Your task to perform on an android device: turn pop-ups on in chrome Image 0: 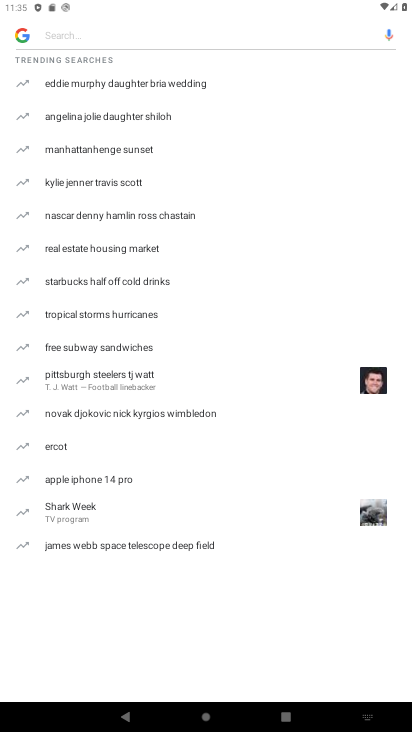
Step 0: press home button
Your task to perform on an android device: turn pop-ups on in chrome Image 1: 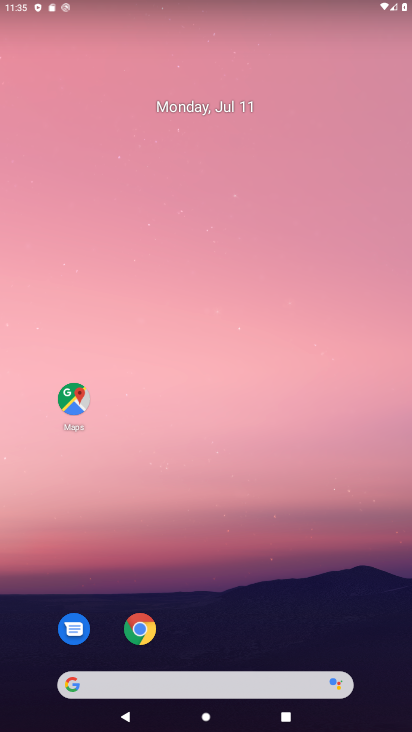
Step 1: drag from (340, 599) to (356, 123)
Your task to perform on an android device: turn pop-ups on in chrome Image 2: 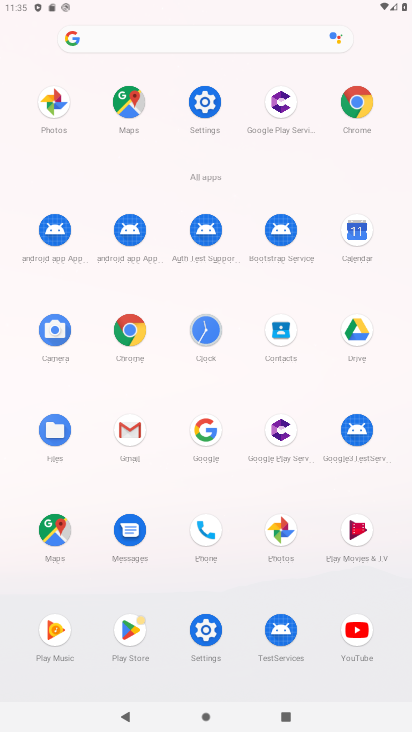
Step 2: click (137, 324)
Your task to perform on an android device: turn pop-ups on in chrome Image 3: 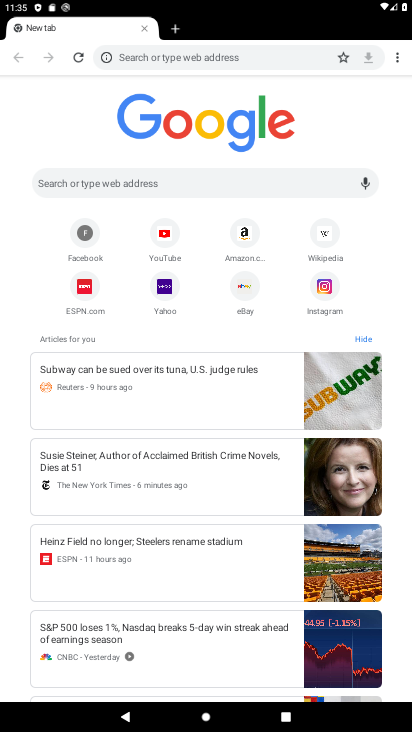
Step 3: click (393, 59)
Your task to perform on an android device: turn pop-ups on in chrome Image 4: 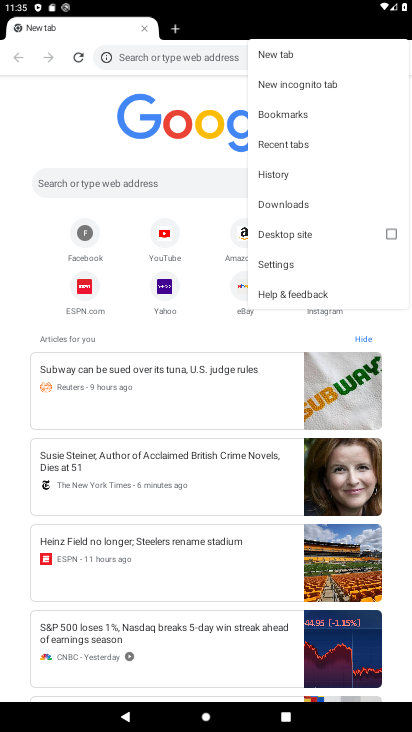
Step 4: click (296, 263)
Your task to perform on an android device: turn pop-ups on in chrome Image 5: 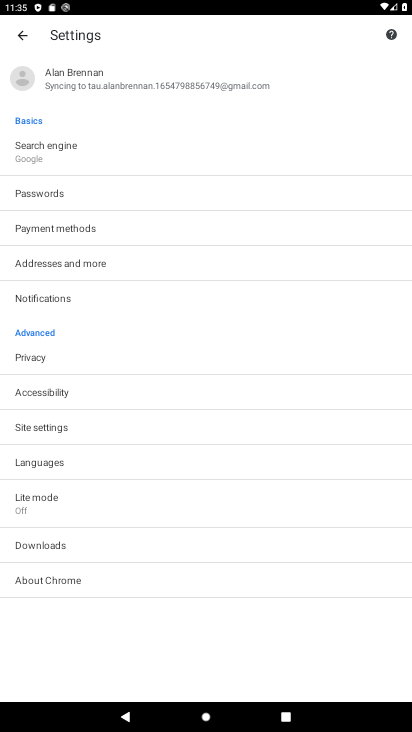
Step 5: drag from (290, 368) to (287, 253)
Your task to perform on an android device: turn pop-ups on in chrome Image 6: 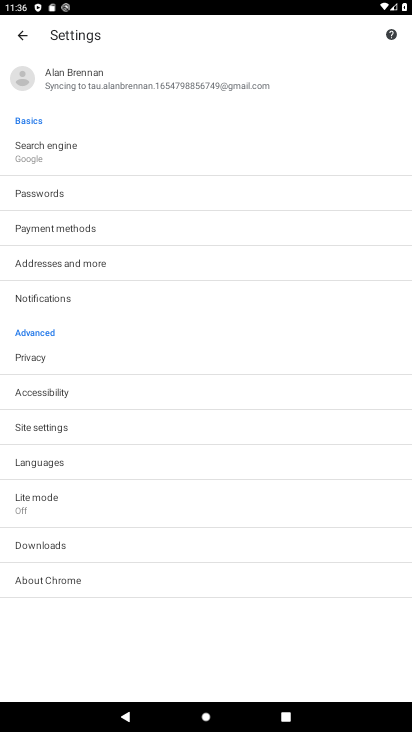
Step 6: click (189, 426)
Your task to perform on an android device: turn pop-ups on in chrome Image 7: 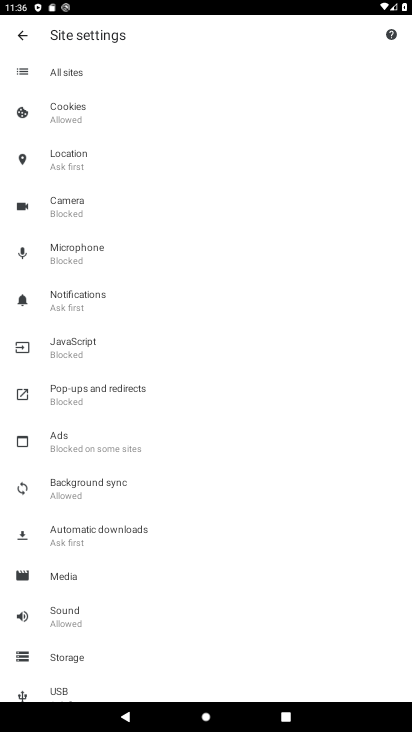
Step 7: click (123, 398)
Your task to perform on an android device: turn pop-ups on in chrome Image 8: 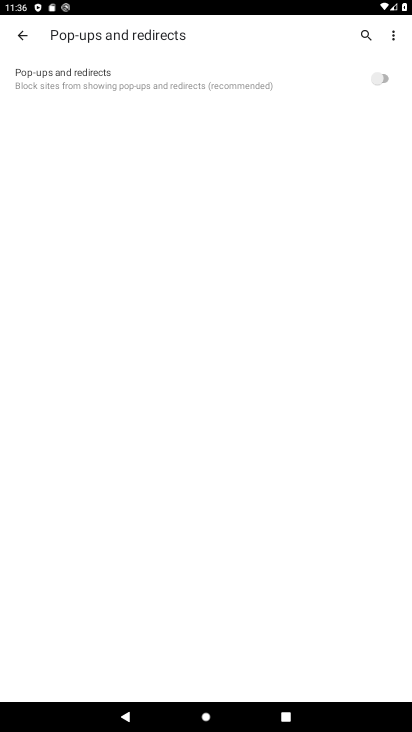
Step 8: click (375, 72)
Your task to perform on an android device: turn pop-ups on in chrome Image 9: 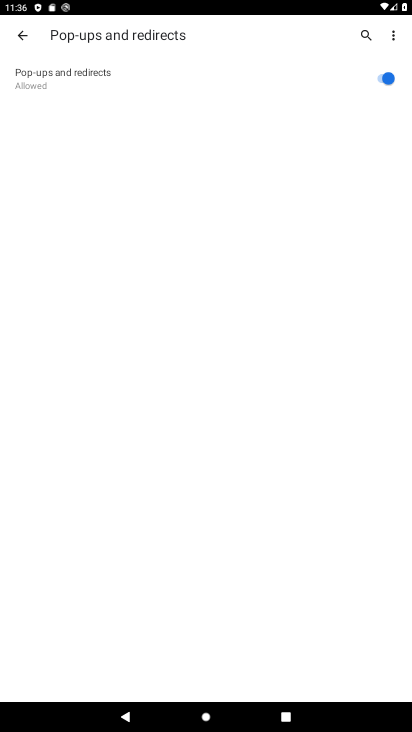
Step 9: task complete